Your task to perform on an android device: delete location history Image 0: 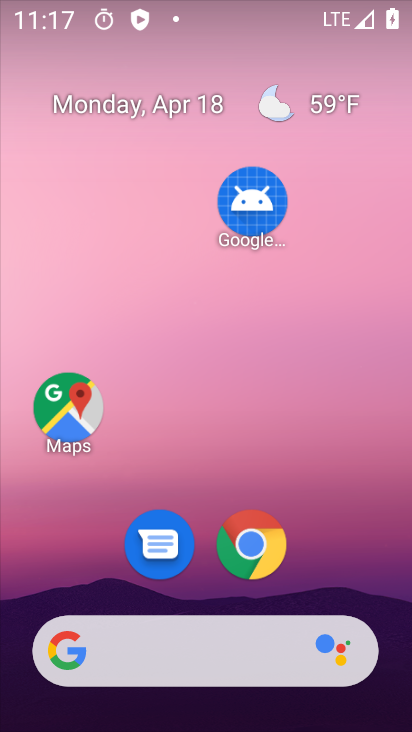
Step 0: drag from (211, 554) to (281, 144)
Your task to perform on an android device: delete location history Image 1: 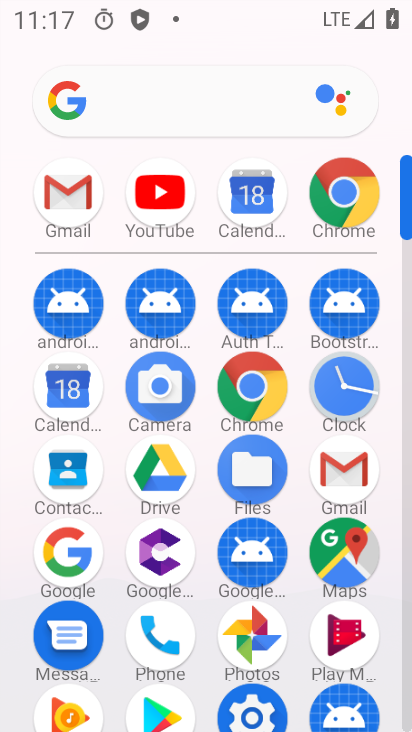
Step 1: click (347, 543)
Your task to perform on an android device: delete location history Image 2: 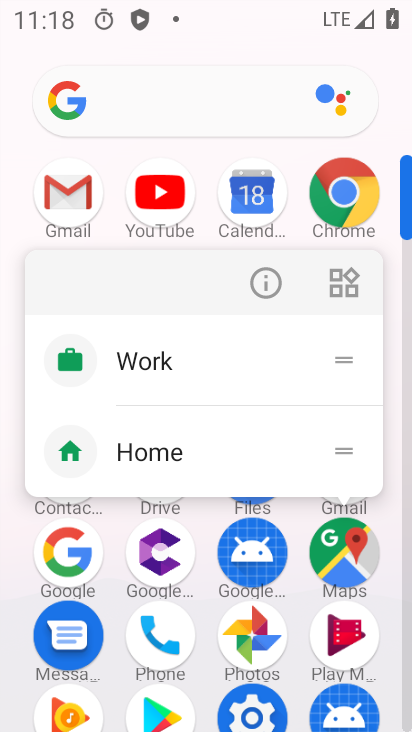
Step 2: click (350, 545)
Your task to perform on an android device: delete location history Image 3: 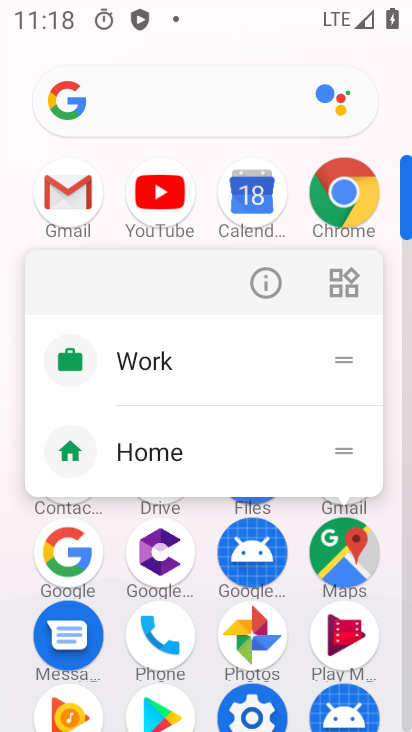
Step 3: click (350, 545)
Your task to perform on an android device: delete location history Image 4: 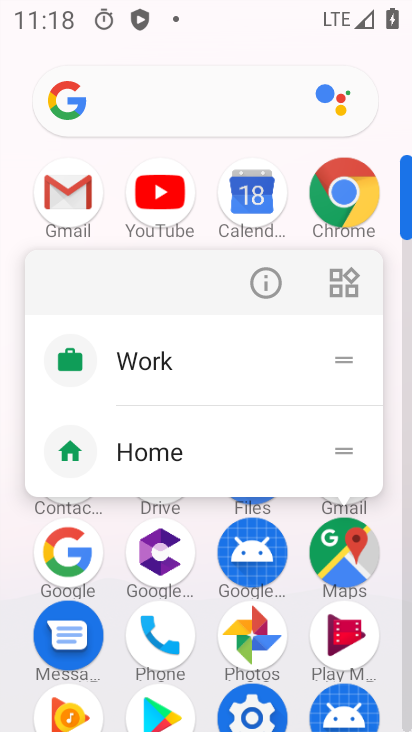
Step 4: click (343, 541)
Your task to perform on an android device: delete location history Image 5: 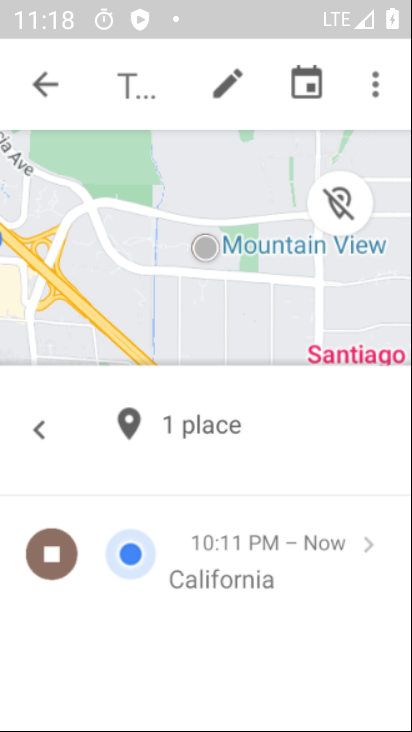
Step 5: click (343, 541)
Your task to perform on an android device: delete location history Image 6: 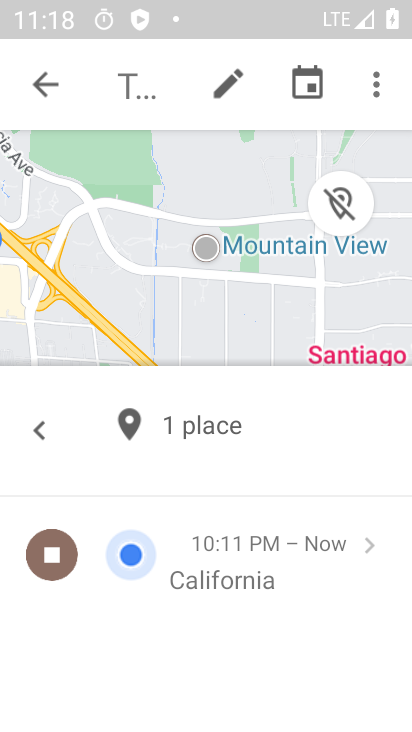
Step 6: click (373, 74)
Your task to perform on an android device: delete location history Image 7: 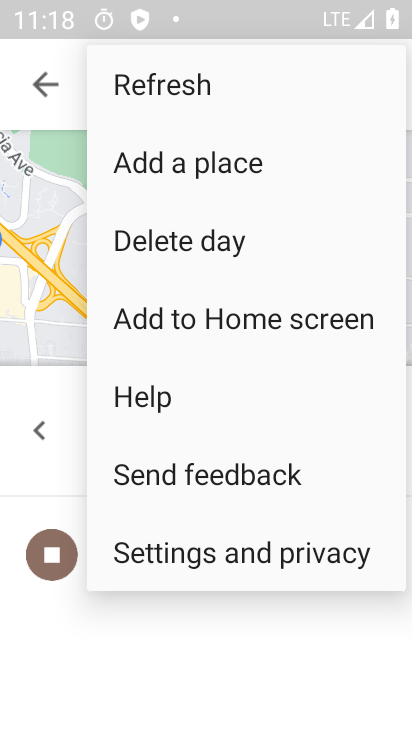
Step 7: click (177, 549)
Your task to perform on an android device: delete location history Image 8: 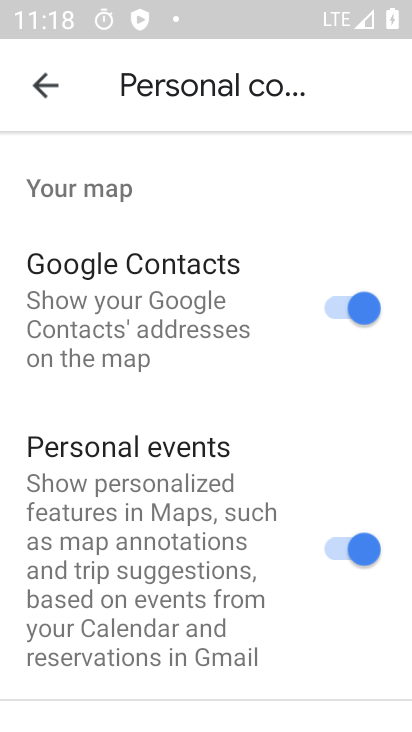
Step 8: drag from (210, 580) to (272, 130)
Your task to perform on an android device: delete location history Image 9: 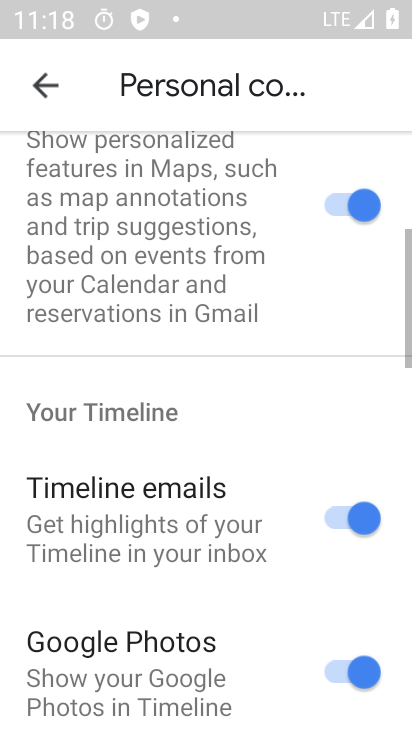
Step 9: drag from (166, 551) to (244, 140)
Your task to perform on an android device: delete location history Image 10: 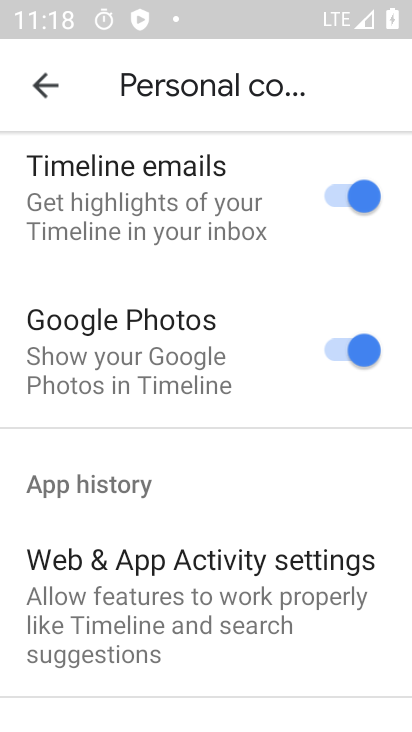
Step 10: drag from (225, 602) to (273, 63)
Your task to perform on an android device: delete location history Image 11: 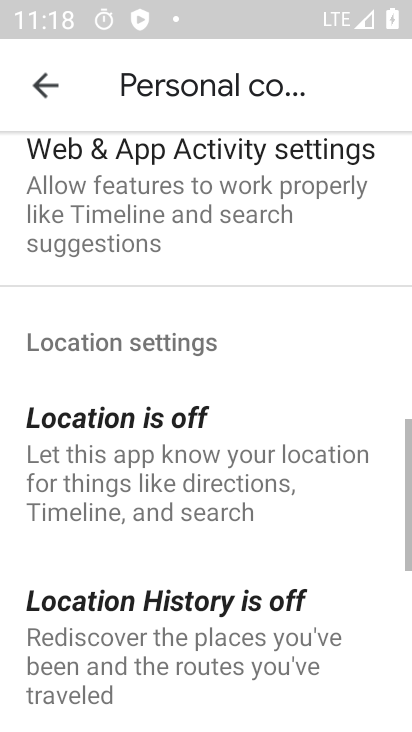
Step 11: drag from (233, 284) to (244, 185)
Your task to perform on an android device: delete location history Image 12: 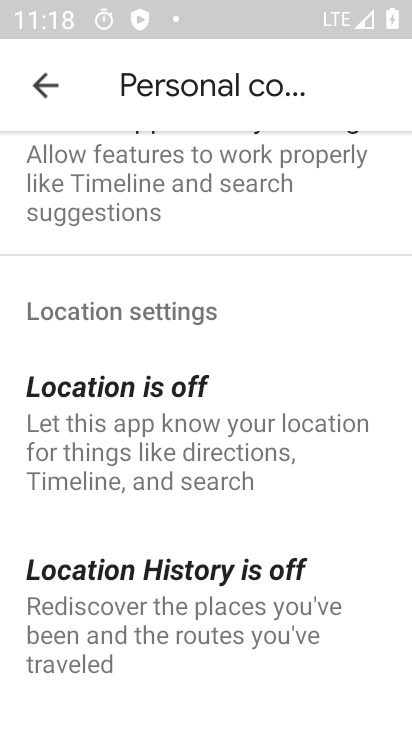
Step 12: drag from (159, 638) to (253, 161)
Your task to perform on an android device: delete location history Image 13: 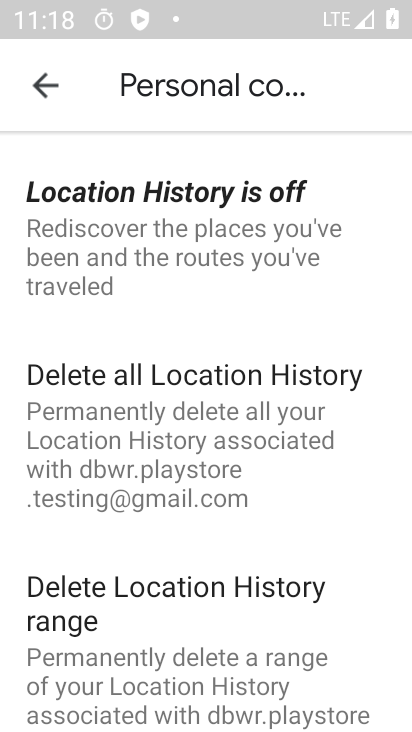
Step 13: click (169, 418)
Your task to perform on an android device: delete location history Image 14: 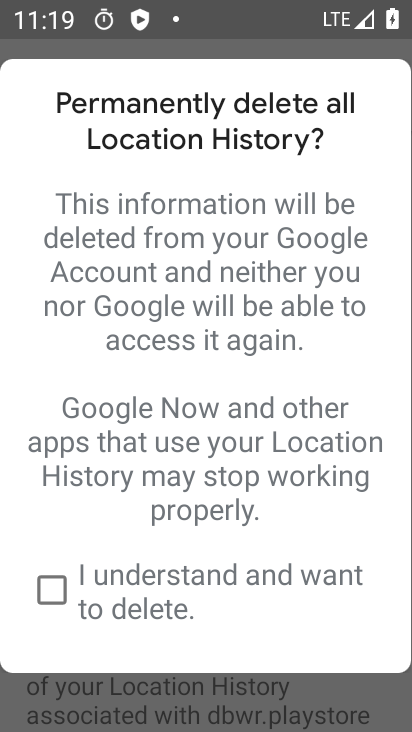
Step 14: click (63, 582)
Your task to perform on an android device: delete location history Image 15: 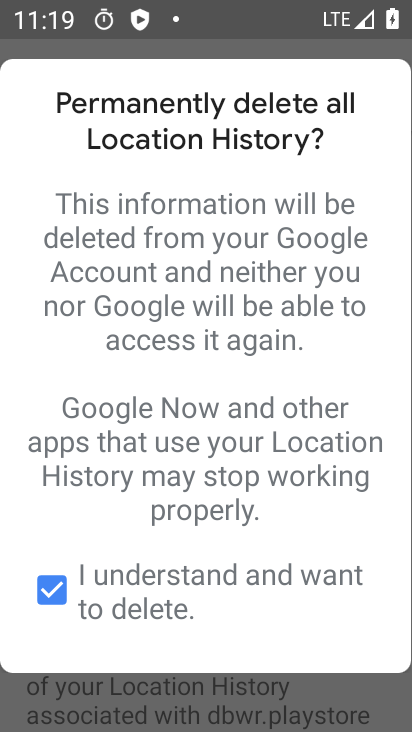
Step 15: drag from (274, 568) to (371, 136)
Your task to perform on an android device: delete location history Image 16: 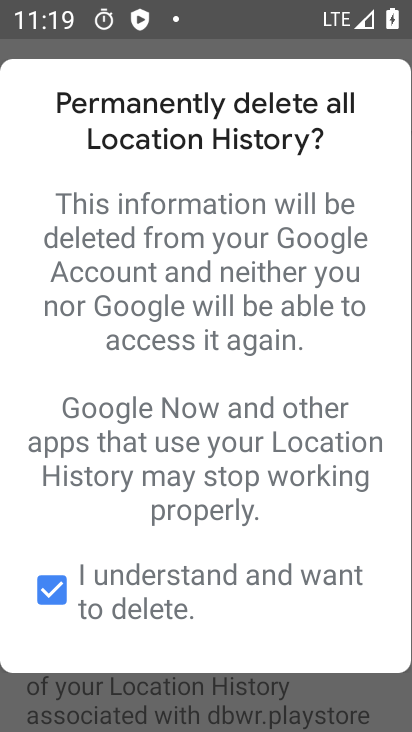
Step 16: click (218, 617)
Your task to perform on an android device: delete location history Image 17: 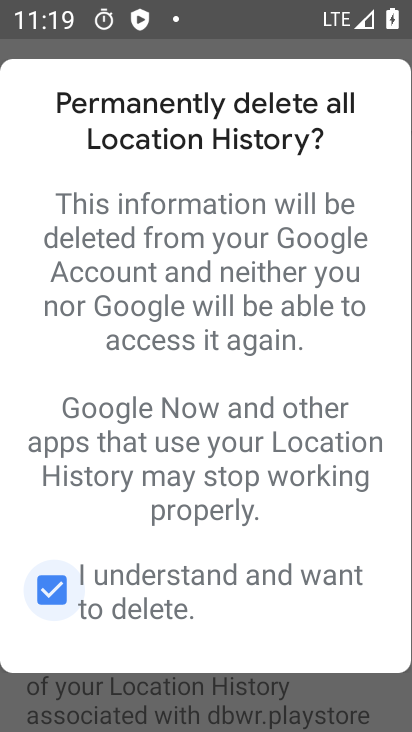
Step 17: click (240, 613)
Your task to perform on an android device: delete location history Image 18: 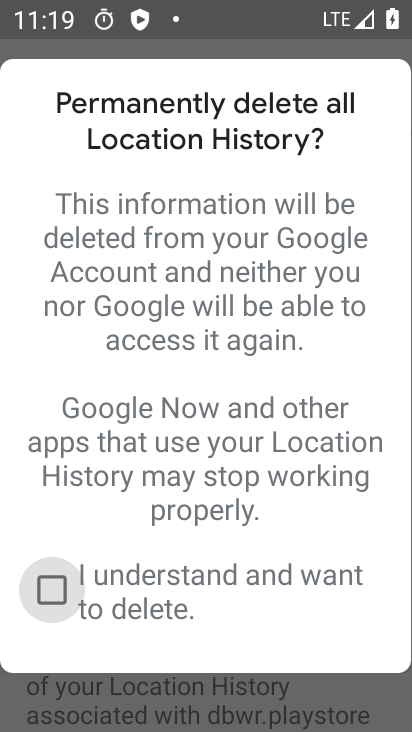
Step 18: drag from (276, 437) to (278, 603)
Your task to perform on an android device: delete location history Image 19: 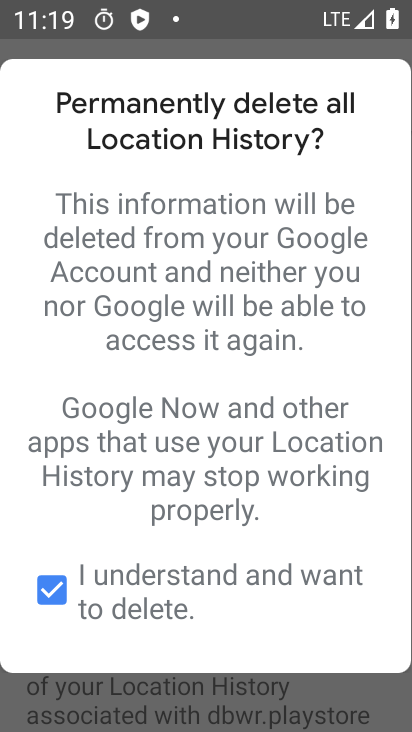
Step 19: drag from (258, 477) to (197, 568)
Your task to perform on an android device: delete location history Image 20: 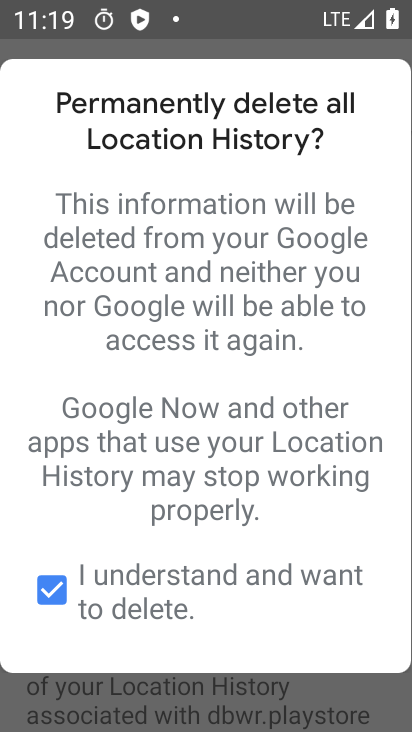
Step 20: click (49, 580)
Your task to perform on an android device: delete location history Image 21: 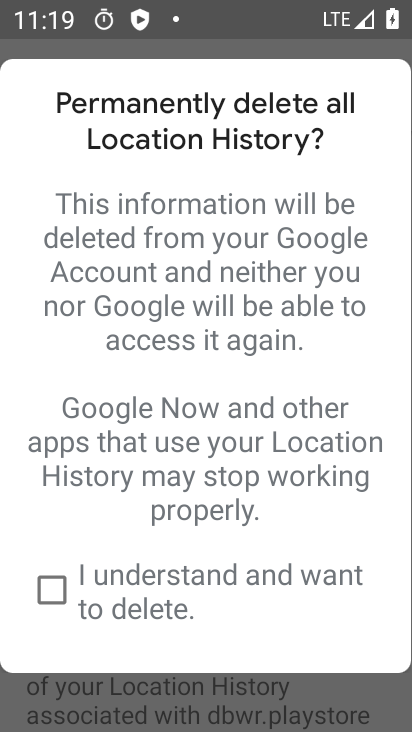
Step 21: drag from (211, 567) to (271, 124)
Your task to perform on an android device: delete location history Image 22: 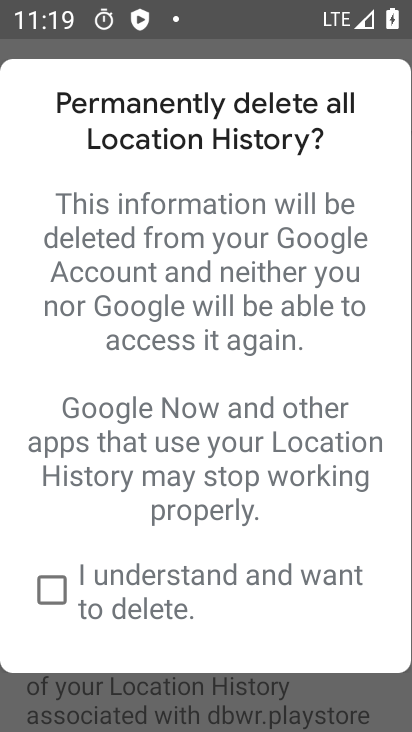
Step 22: click (271, 714)
Your task to perform on an android device: delete location history Image 23: 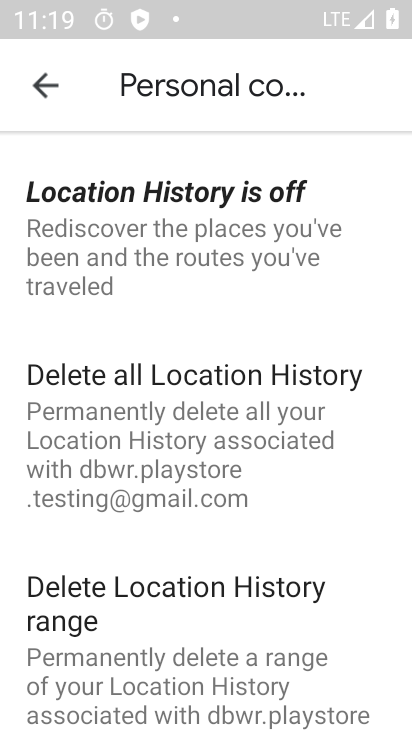
Step 23: press back button
Your task to perform on an android device: delete location history Image 24: 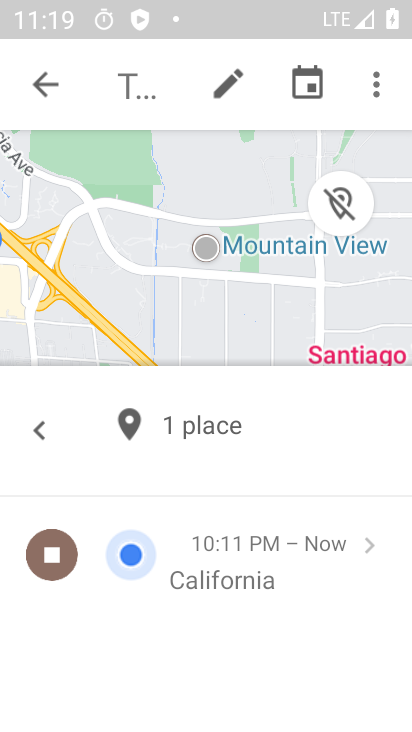
Step 24: click (368, 76)
Your task to perform on an android device: delete location history Image 25: 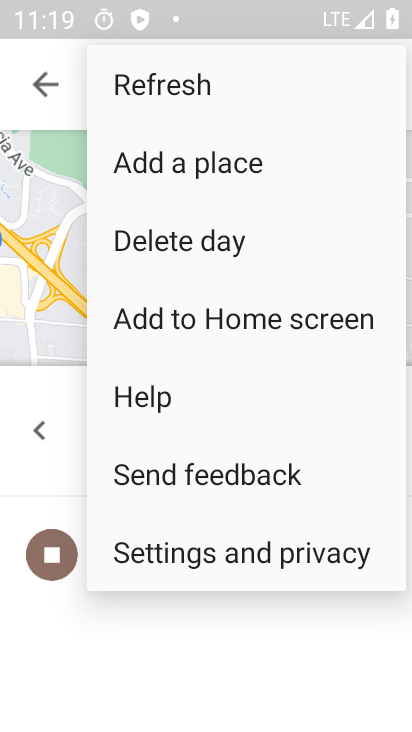
Step 25: click (149, 536)
Your task to perform on an android device: delete location history Image 26: 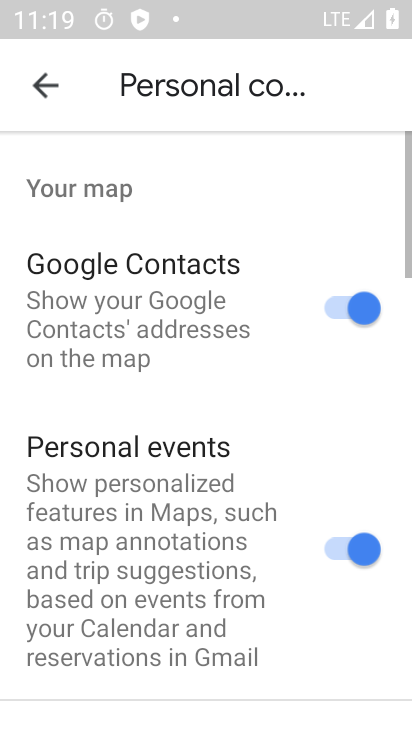
Step 26: drag from (170, 637) to (289, 141)
Your task to perform on an android device: delete location history Image 27: 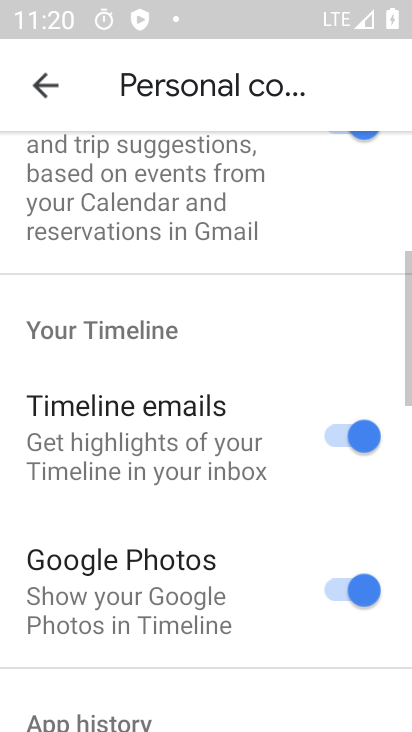
Step 27: drag from (128, 641) to (246, 191)
Your task to perform on an android device: delete location history Image 28: 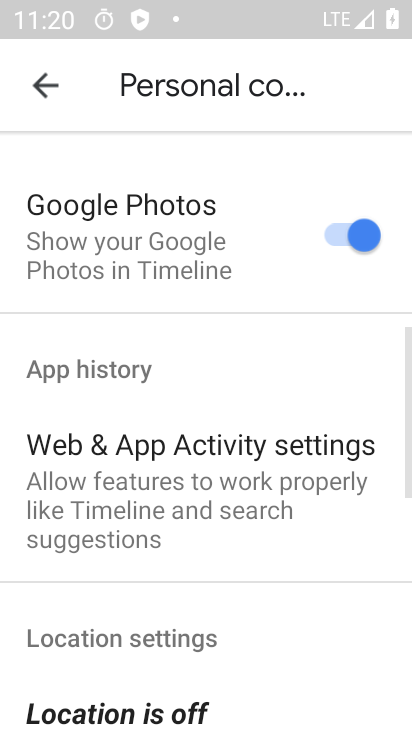
Step 28: drag from (219, 614) to (295, 135)
Your task to perform on an android device: delete location history Image 29: 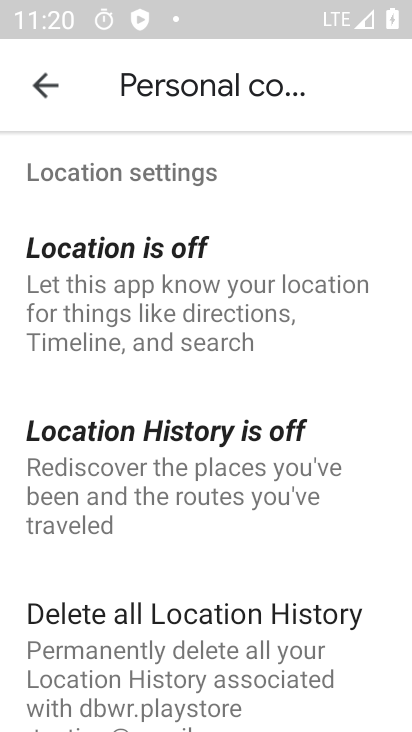
Step 29: click (128, 615)
Your task to perform on an android device: delete location history Image 30: 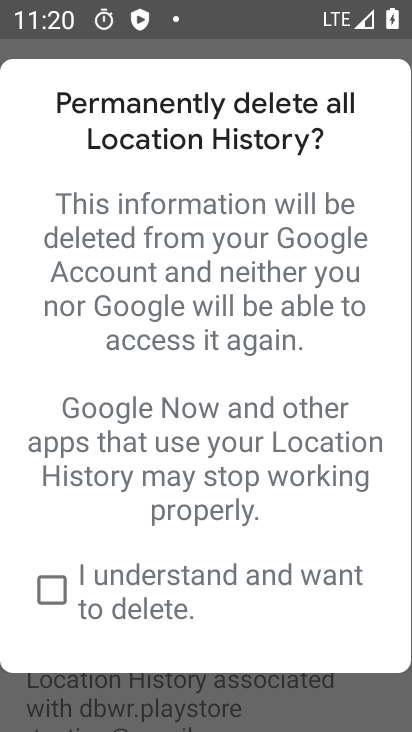
Step 30: click (34, 593)
Your task to perform on an android device: delete location history Image 31: 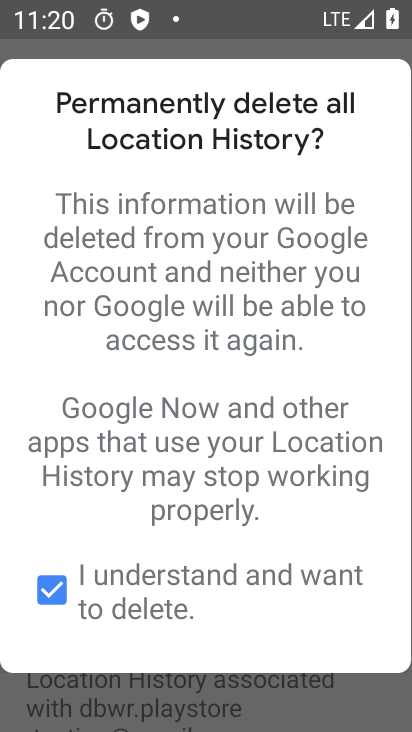
Step 31: task complete